Your task to perform on an android device: View the shopping cart on walmart. Add razer blade to the cart on walmart, then select checkout. Image 0: 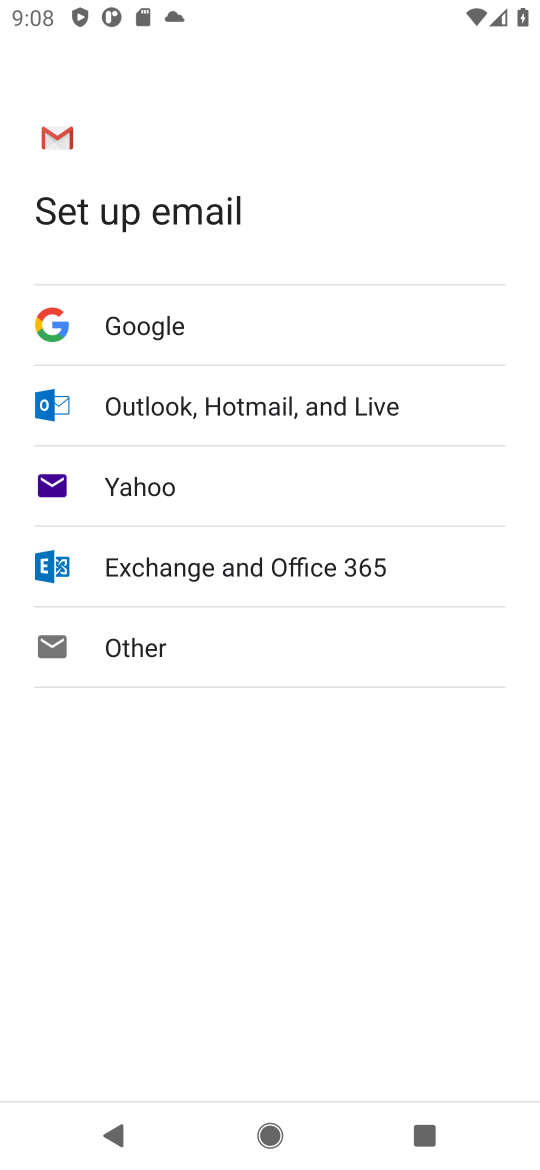
Step 0: press home button
Your task to perform on an android device: View the shopping cart on walmart. Add razer blade to the cart on walmart, then select checkout. Image 1: 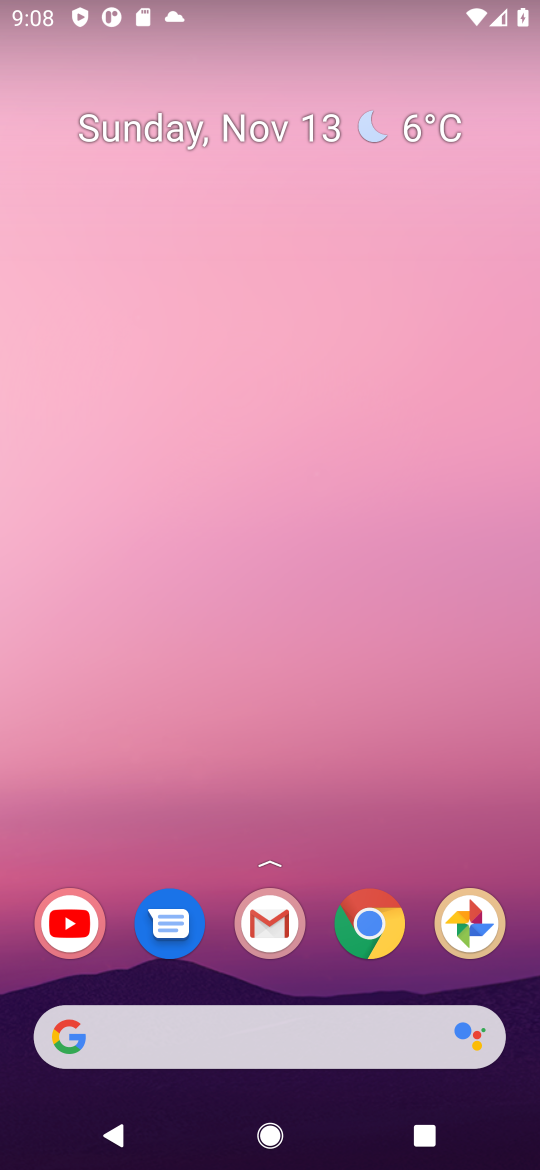
Step 1: click (366, 927)
Your task to perform on an android device: View the shopping cart on walmart. Add razer blade to the cart on walmart, then select checkout. Image 2: 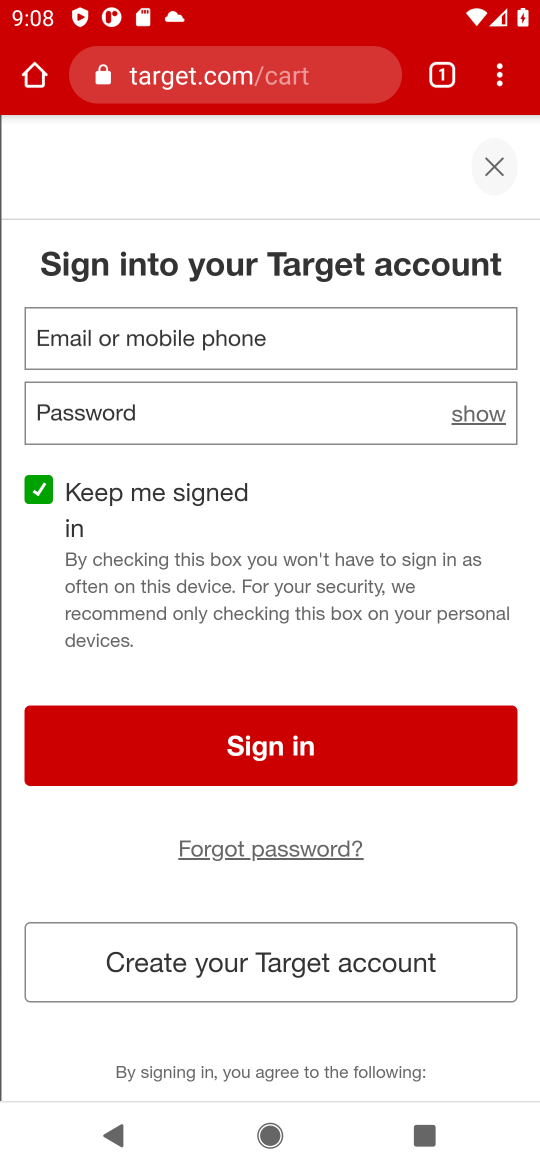
Step 2: click (304, 65)
Your task to perform on an android device: View the shopping cart on walmart. Add razer blade to the cart on walmart, then select checkout. Image 3: 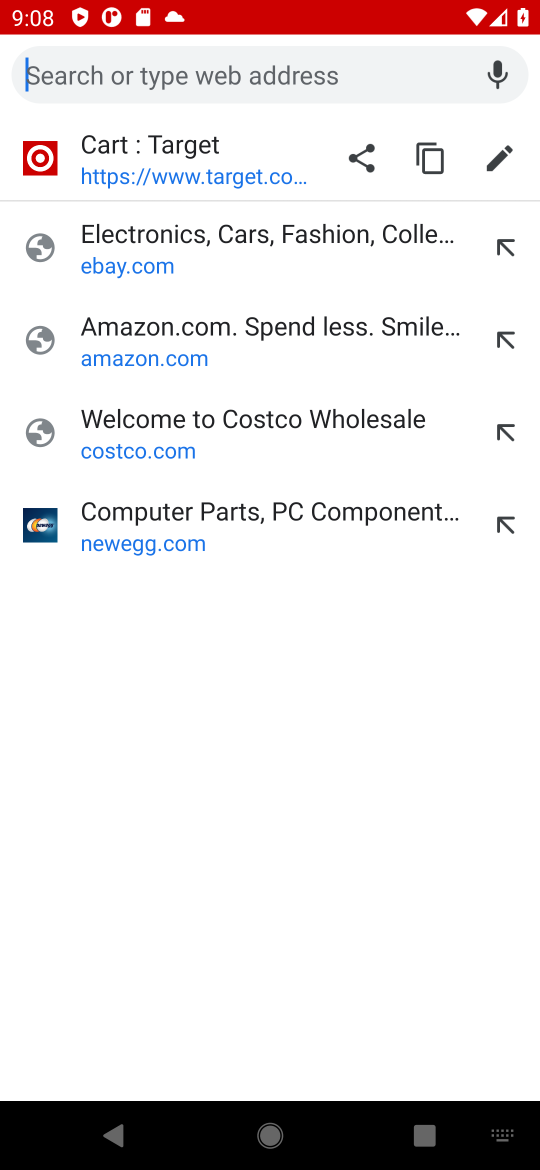
Step 3: press enter
Your task to perform on an android device: View the shopping cart on walmart. Add razer blade to the cart on walmart, then select checkout. Image 4: 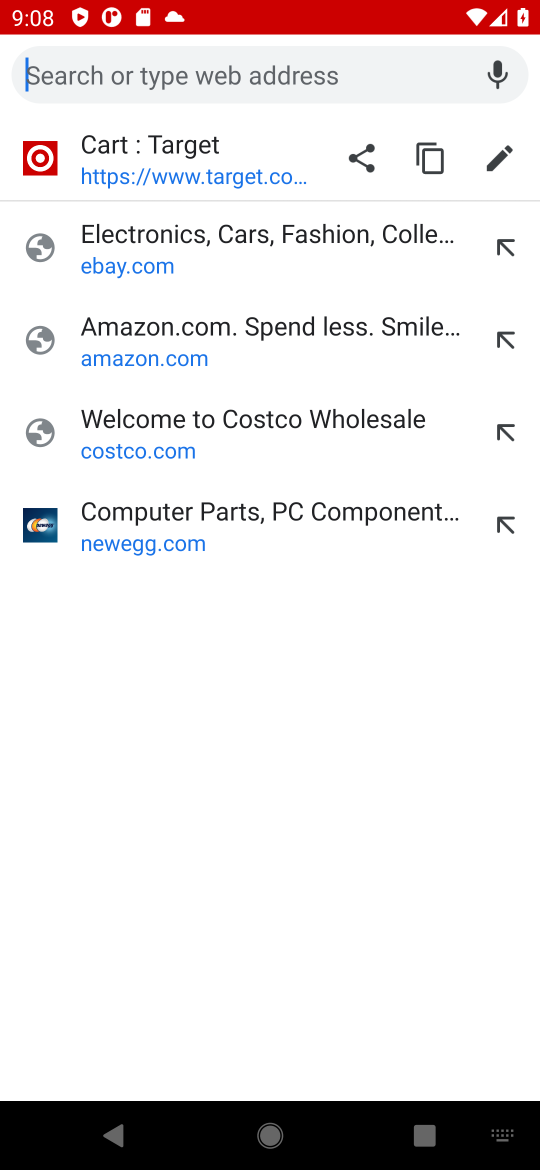
Step 4: type "walmart"
Your task to perform on an android device: View the shopping cart on walmart. Add razer blade to the cart on walmart, then select checkout. Image 5: 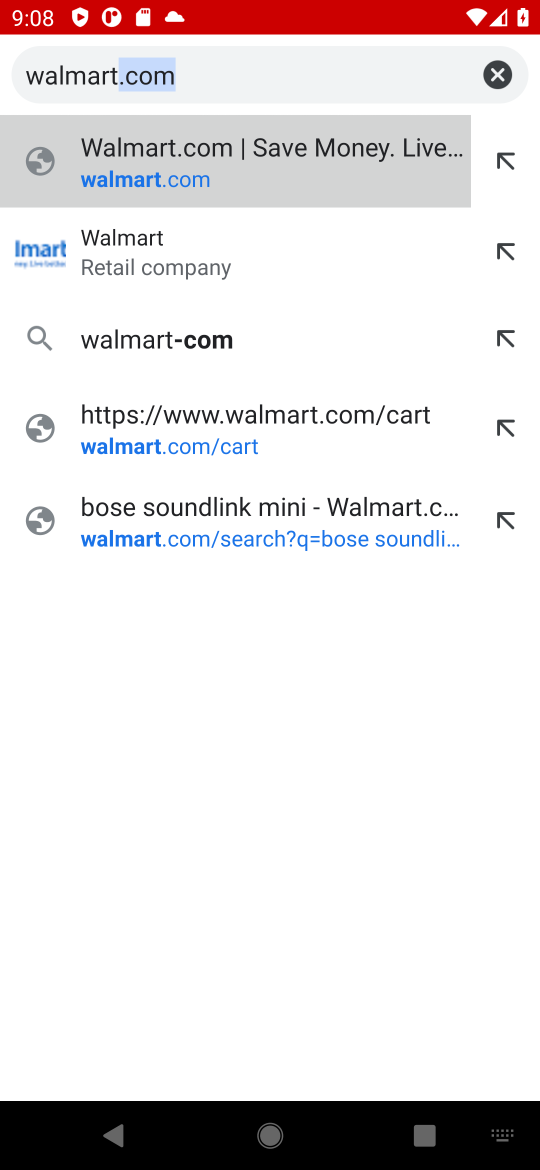
Step 5: click (316, 52)
Your task to perform on an android device: View the shopping cart on walmart. Add razer blade to the cart on walmart, then select checkout. Image 6: 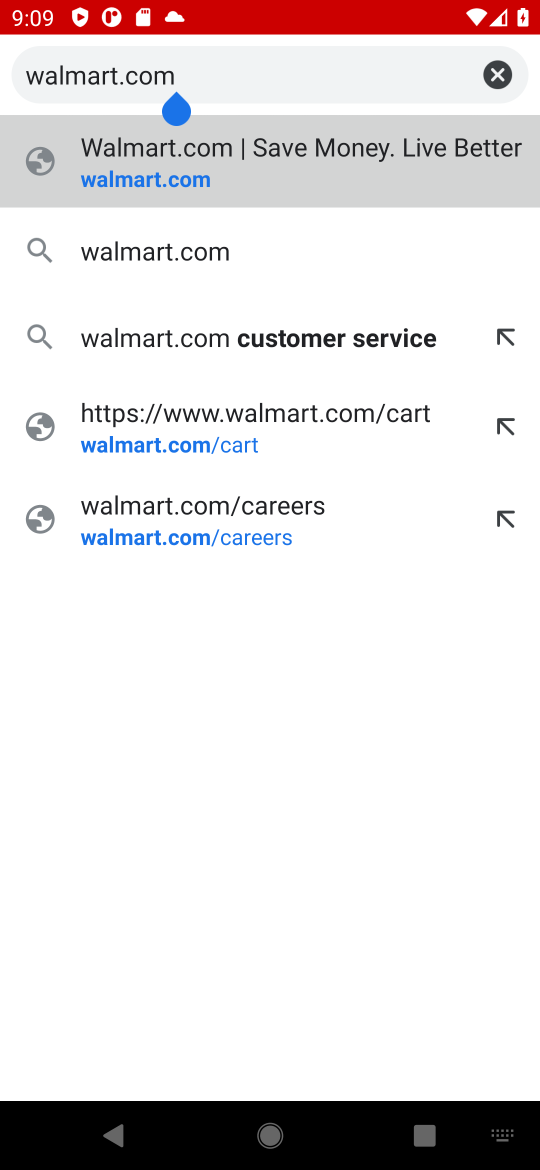
Step 6: click (339, 159)
Your task to perform on an android device: View the shopping cart on walmart. Add razer blade to the cart on walmart, then select checkout. Image 7: 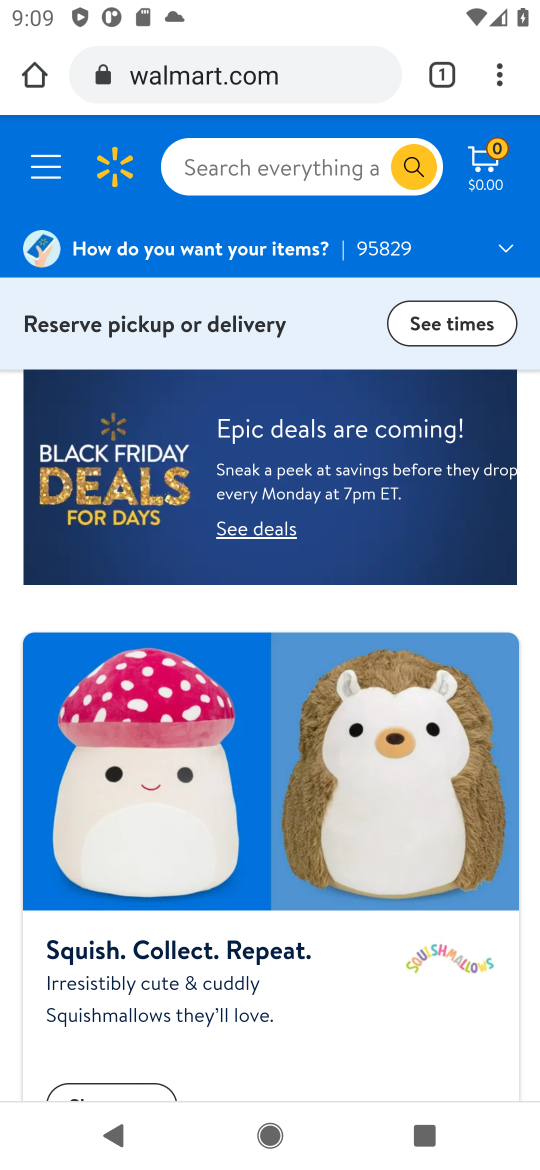
Step 7: click (312, 168)
Your task to perform on an android device: View the shopping cart on walmart. Add razer blade to the cart on walmart, then select checkout. Image 8: 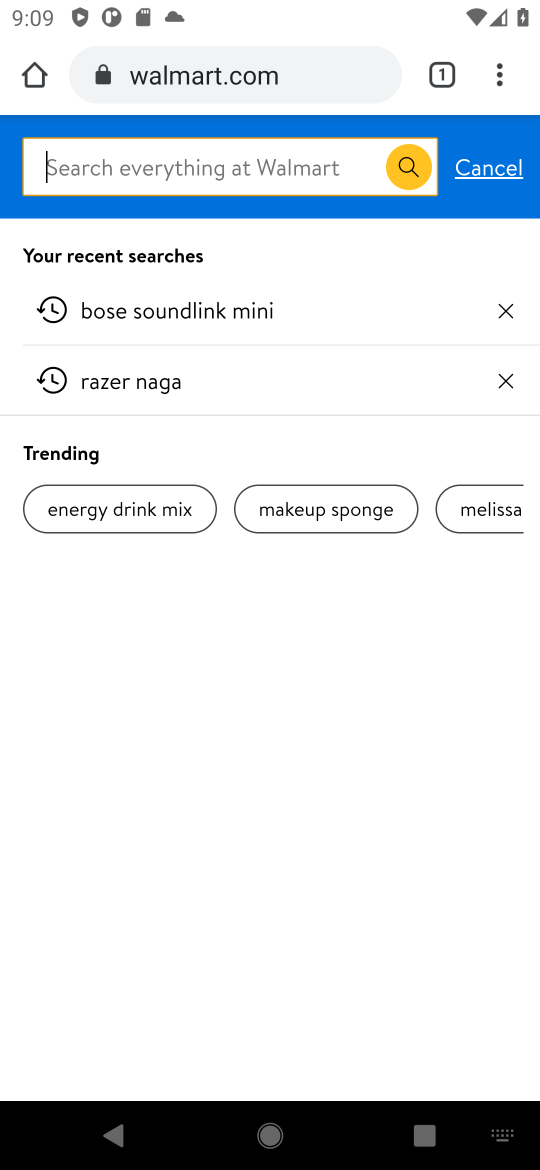
Step 8: type " razer blade "
Your task to perform on an android device: View the shopping cart on walmart. Add razer blade to the cart on walmart, then select checkout. Image 9: 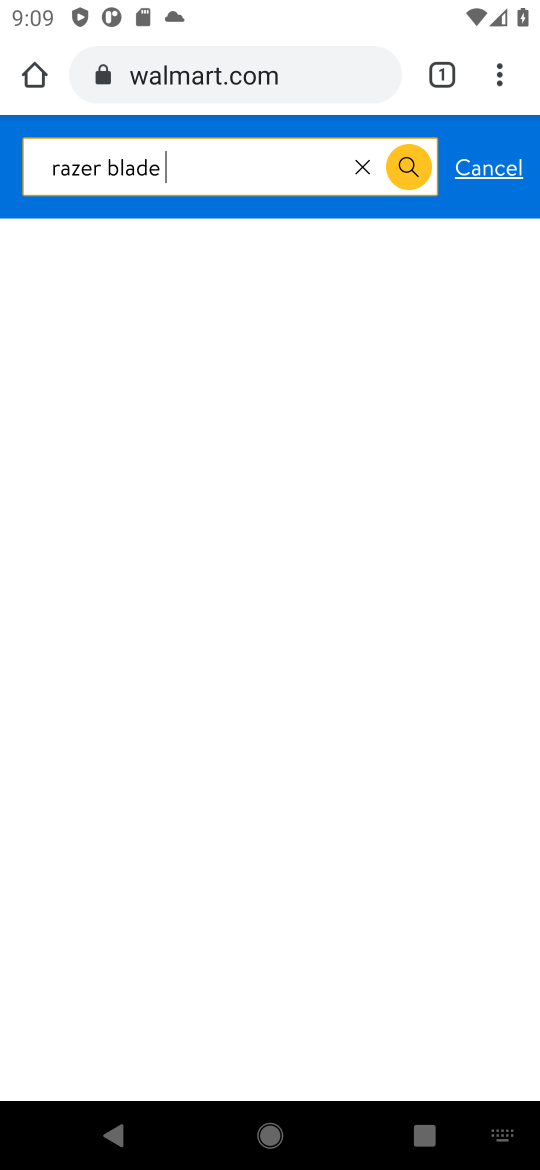
Step 9: press enter
Your task to perform on an android device: View the shopping cart on walmart. Add razer blade to the cart on walmart, then select checkout. Image 10: 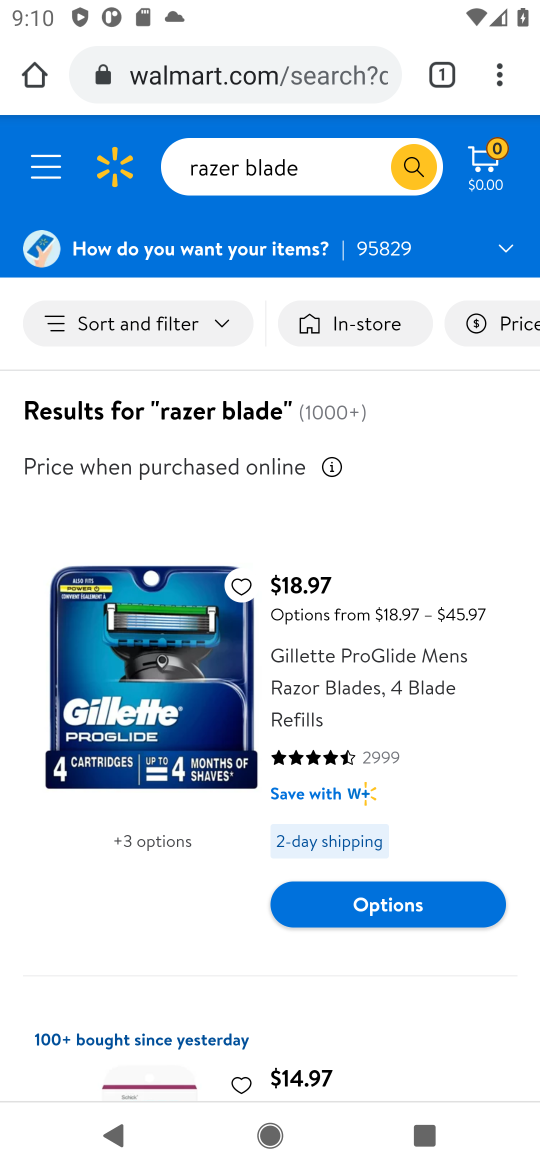
Step 10: task complete